Your task to perform on an android device: Play the last video I watched on Youtube Image 0: 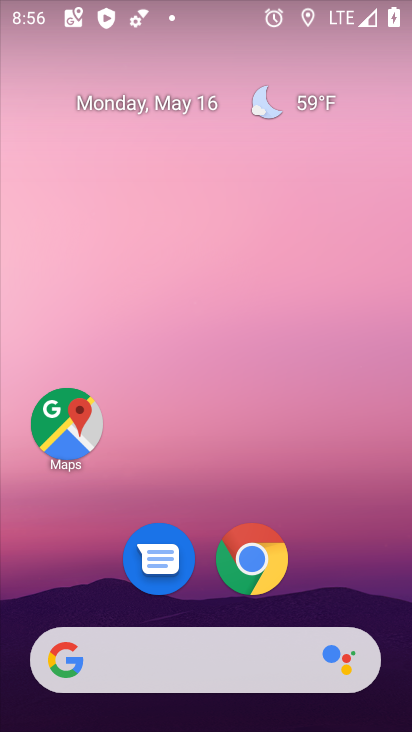
Step 0: drag from (356, 577) to (379, 126)
Your task to perform on an android device: Play the last video I watched on Youtube Image 1: 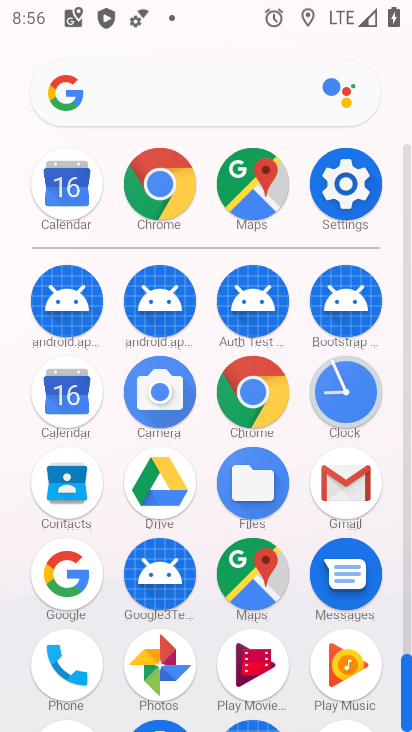
Step 1: drag from (205, 661) to (210, 250)
Your task to perform on an android device: Play the last video I watched on Youtube Image 2: 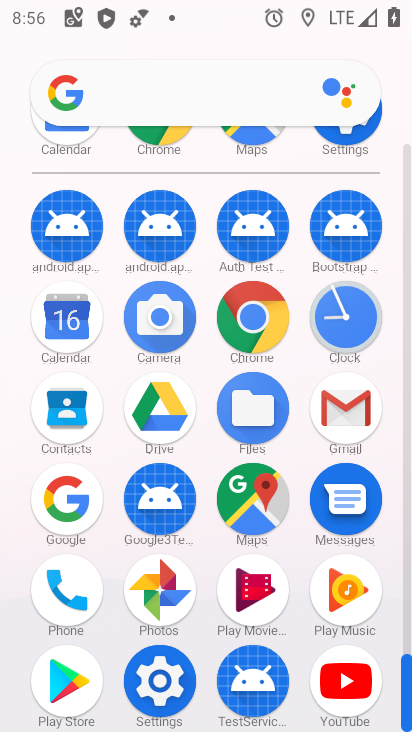
Step 2: click (347, 698)
Your task to perform on an android device: Play the last video I watched on Youtube Image 3: 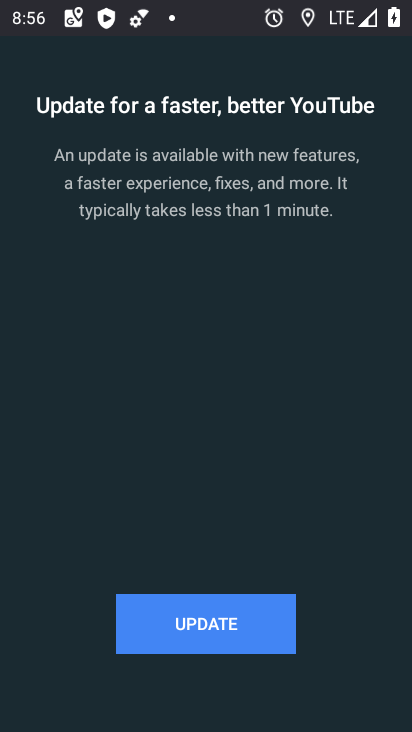
Step 3: click (215, 629)
Your task to perform on an android device: Play the last video I watched on Youtube Image 4: 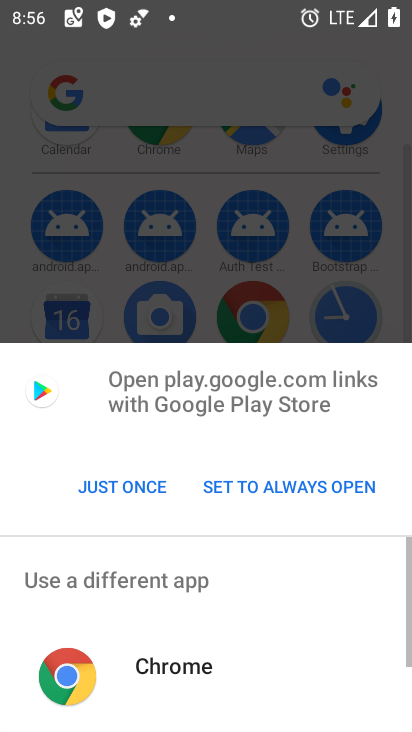
Step 4: click (136, 489)
Your task to perform on an android device: Play the last video I watched on Youtube Image 5: 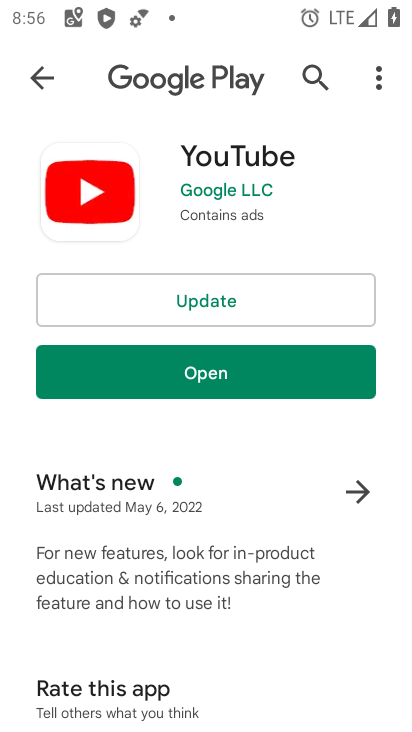
Step 5: click (210, 307)
Your task to perform on an android device: Play the last video I watched on Youtube Image 6: 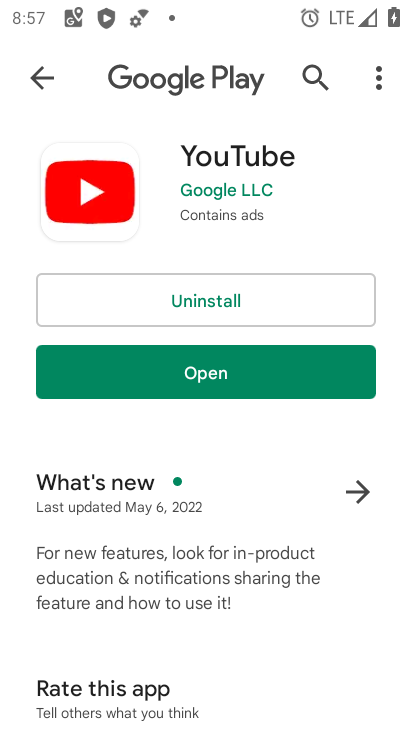
Step 6: click (181, 370)
Your task to perform on an android device: Play the last video I watched on Youtube Image 7: 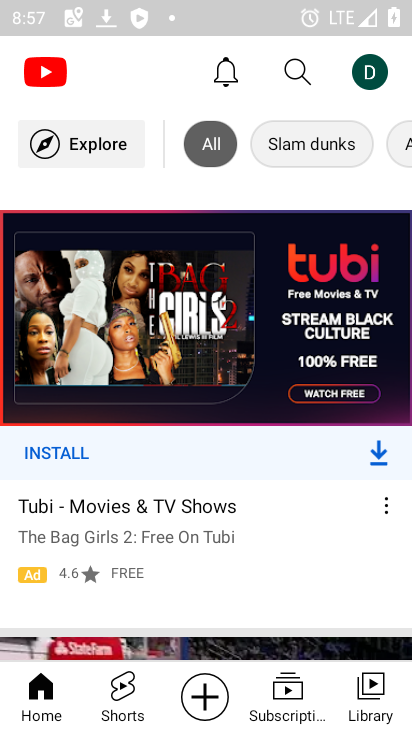
Step 7: click (350, 684)
Your task to perform on an android device: Play the last video I watched on Youtube Image 8: 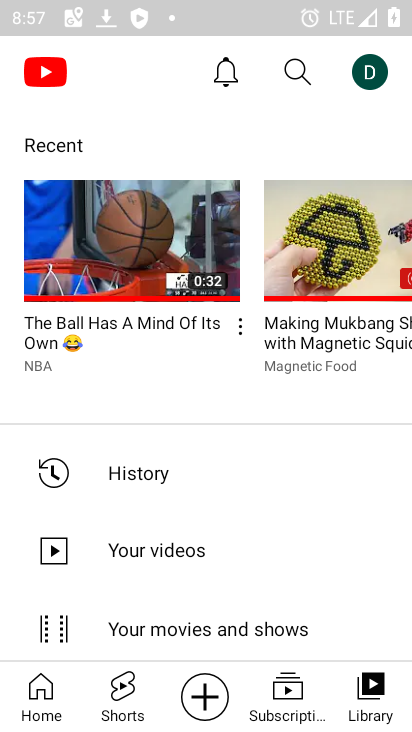
Step 8: task complete